Your task to perform on an android device: Search for seafood restaurants on Google Maps Image 0: 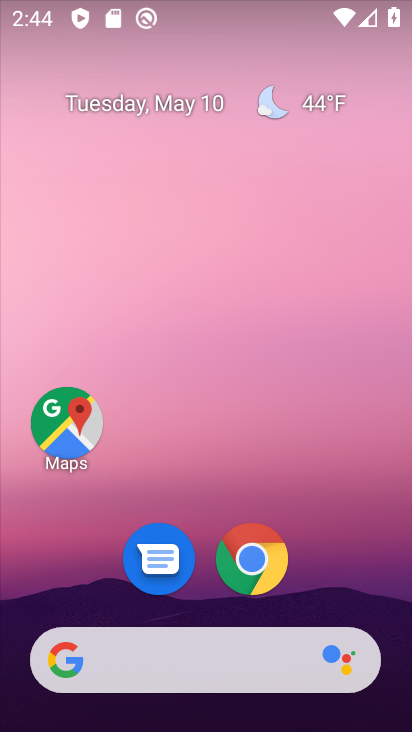
Step 0: drag from (383, 573) to (203, 129)
Your task to perform on an android device: Search for seafood restaurants on Google Maps Image 1: 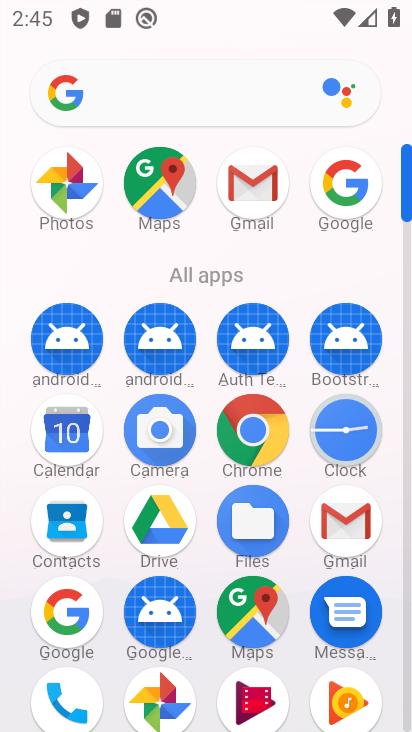
Step 1: click (247, 618)
Your task to perform on an android device: Search for seafood restaurants on Google Maps Image 2: 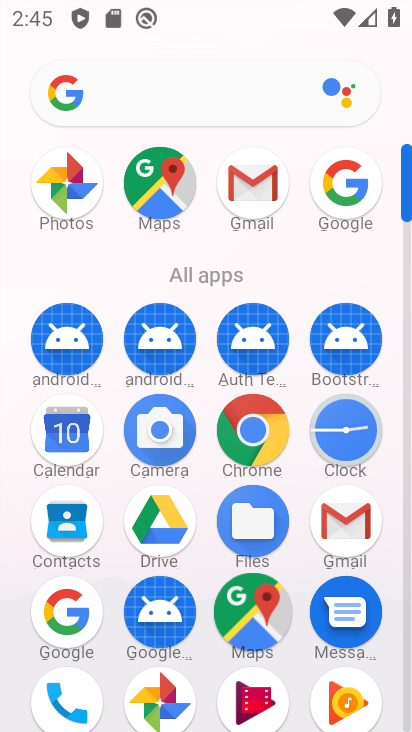
Step 2: click (238, 609)
Your task to perform on an android device: Search for seafood restaurants on Google Maps Image 3: 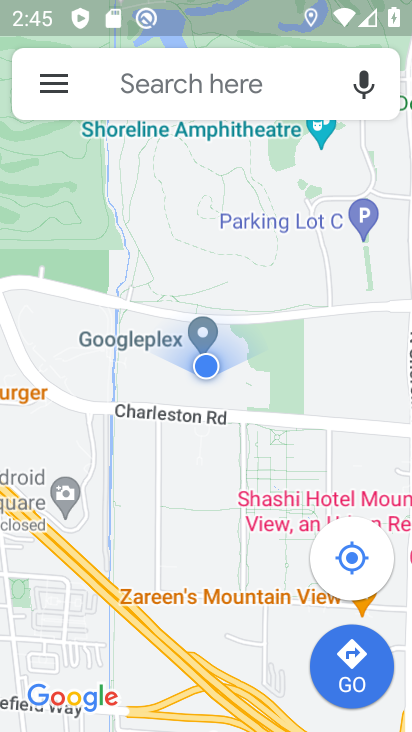
Step 3: click (124, 82)
Your task to perform on an android device: Search for seafood restaurants on Google Maps Image 4: 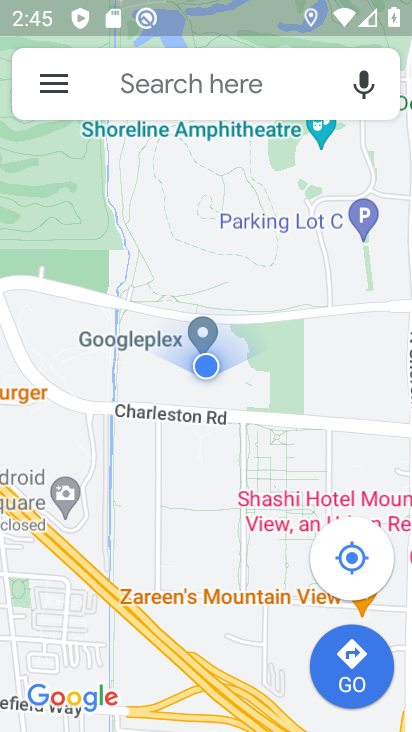
Step 4: click (126, 89)
Your task to perform on an android device: Search for seafood restaurants on Google Maps Image 5: 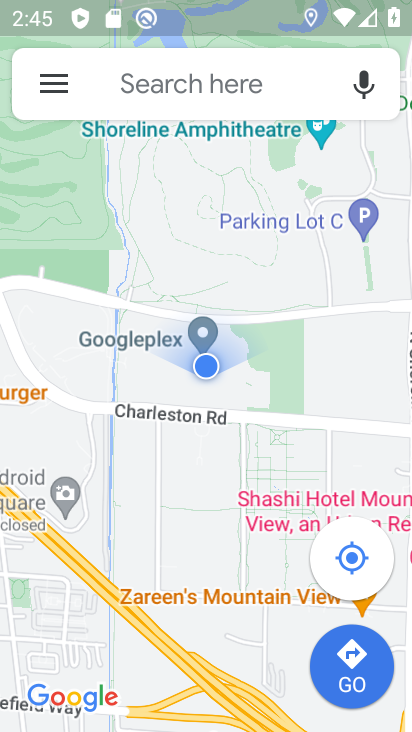
Step 5: click (126, 89)
Your task to perform on an android device: Search for seafood restaurants on Google Maps Image 6: 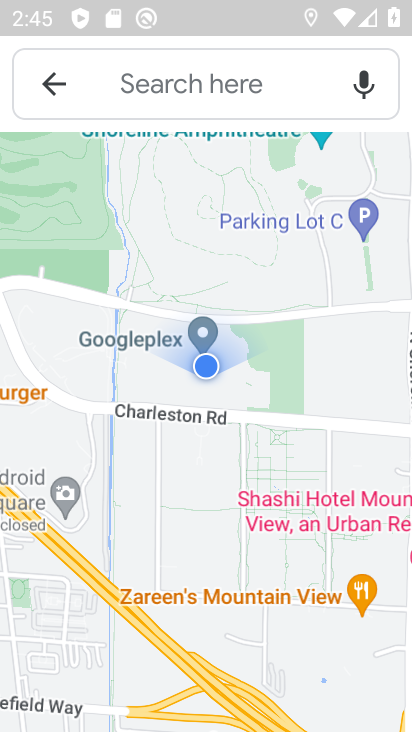
Step 6: click (122, 92)
Your task to perform on an android device: Search for seafood restaurants on Google Maps Image 7: 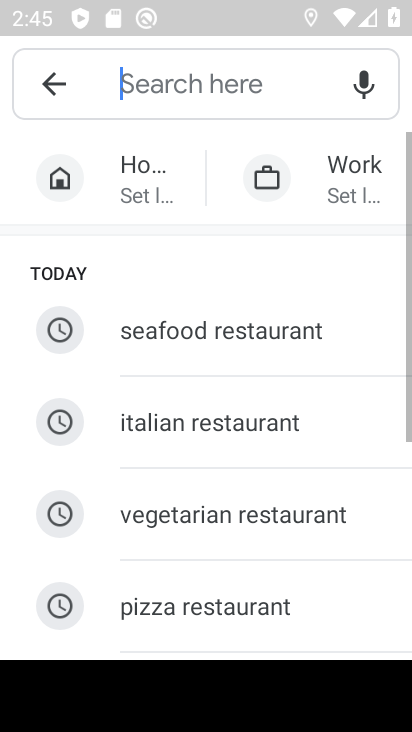
Step 7: click (187, 328)
Your task to perform on an android device: Search for seafood restaurants on Google Maps Image 8: 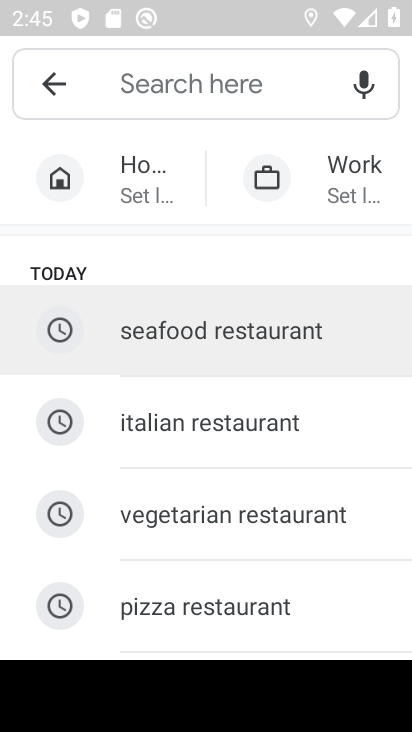
Step 8: click (188, 327)
Your task to perform on an android device: Search for seafood restaurants on Google Maps Image 9: 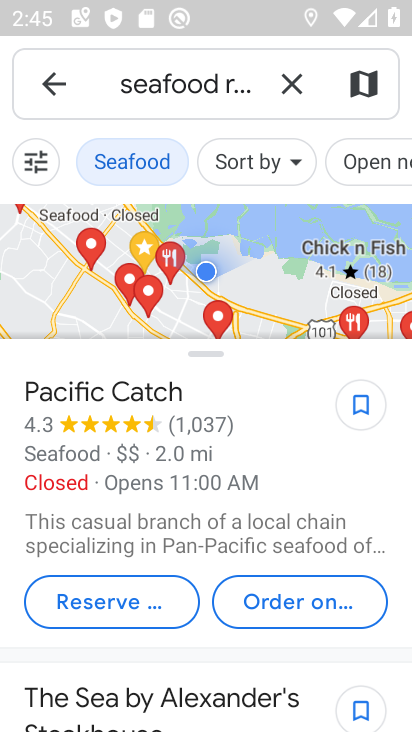
Step 9: task complete